Your task to perform on an android device: change keyboard looks Image 0: 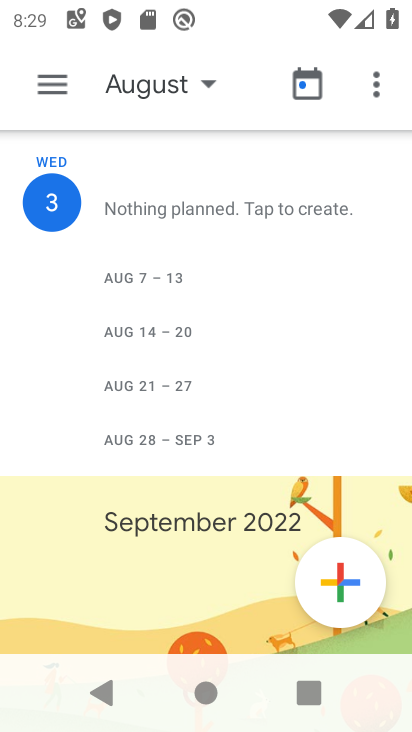
Step 0: press home button
Your task to perform on an android device: change keyboard looks Image 1: 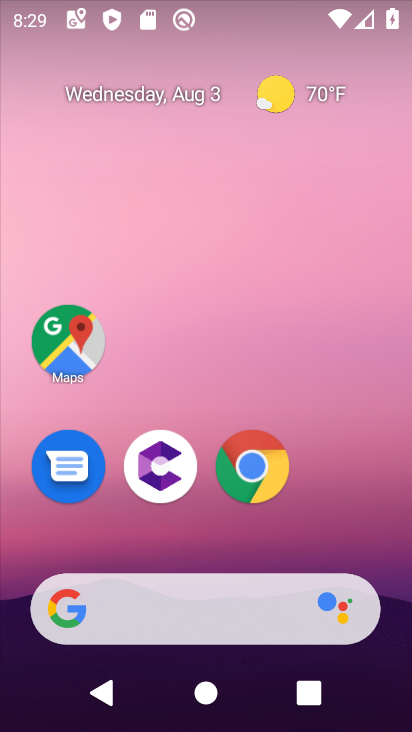
Step 1: drag from (368, 527) to (307, 117)
Your task to perform on an android device: change keyboard looks Image 2: 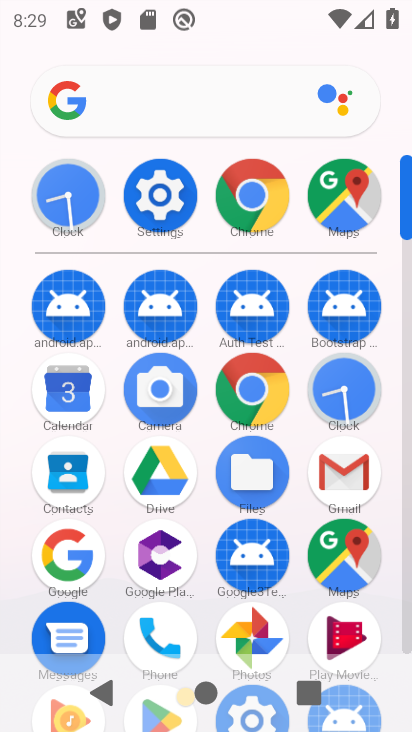
Step 2: click (160, 198)
Your task to perform on an android device: change keyboard looks Image 3: 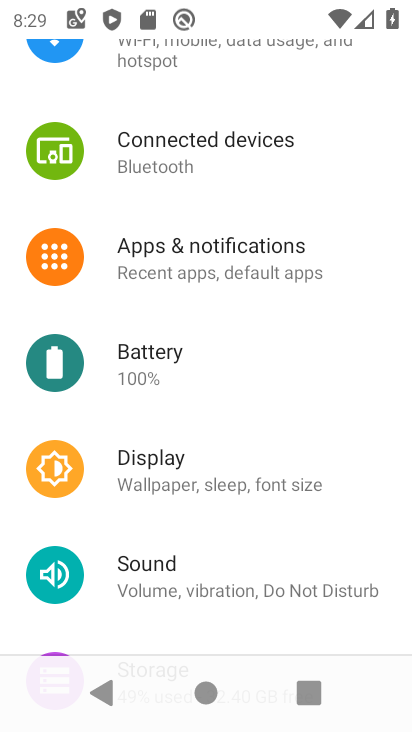
Step 3: click (275, 90)
Your task to perform on an android device: change keyboard looks Image 4: 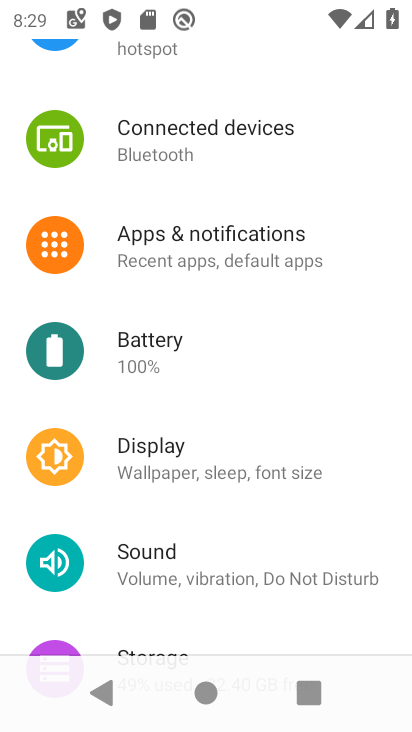
Step 4: drag from (233, 415) to (262, 89)
Your task to perform on an android device: change keyboard looks Image 5: 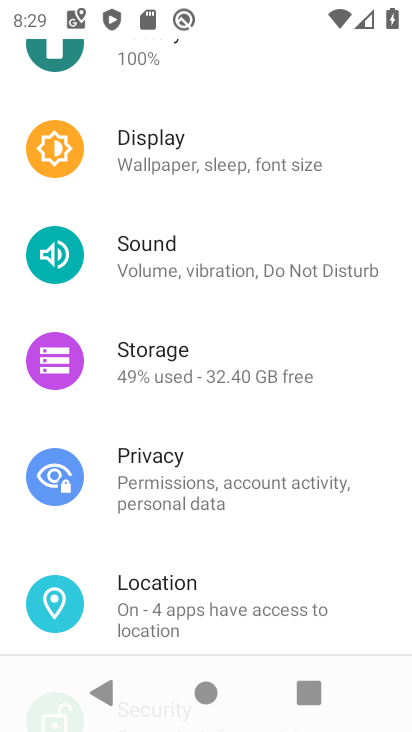
Step 5: drag from (255, 567) to (291, 247)
Your task to perform on an android device: change keyboard looks Image 6: 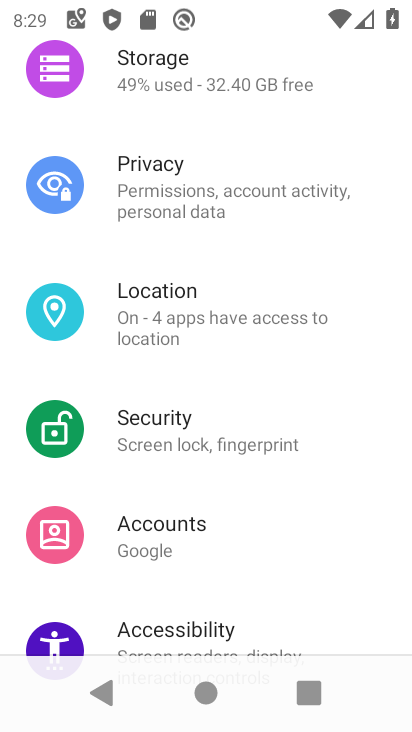
Step 6: drag from (239, 600) to (281, 250)
Your task to perform on an android device: change keyboard looks Image 7: 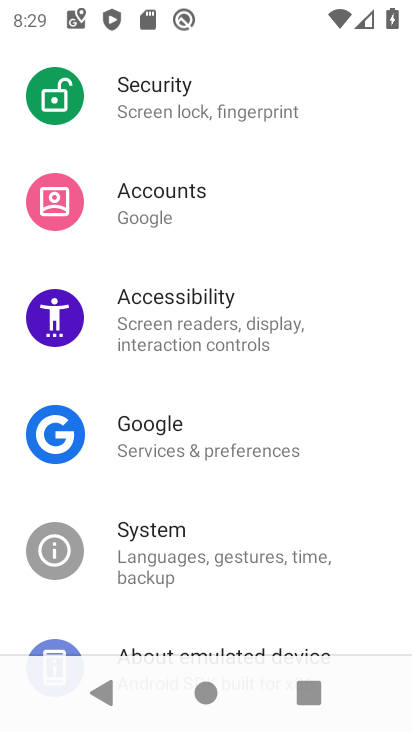
Step 7: click (176, 560)
Your task to perform on an android device: change keyboard looks Image 8: 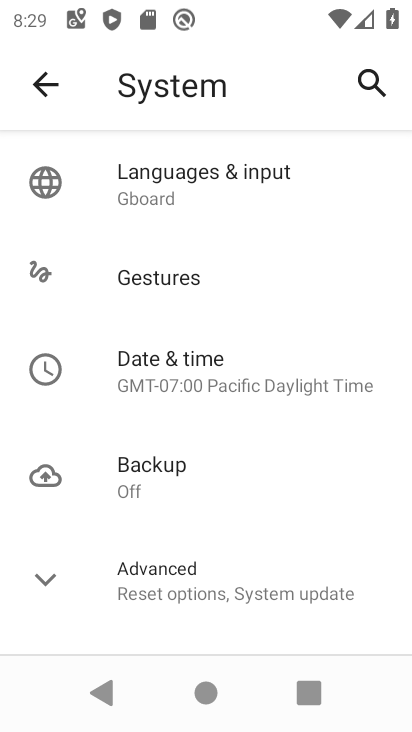
Step 8: click (185, 192)
Your task to perform on an android device: change keyboard looks Image 9: 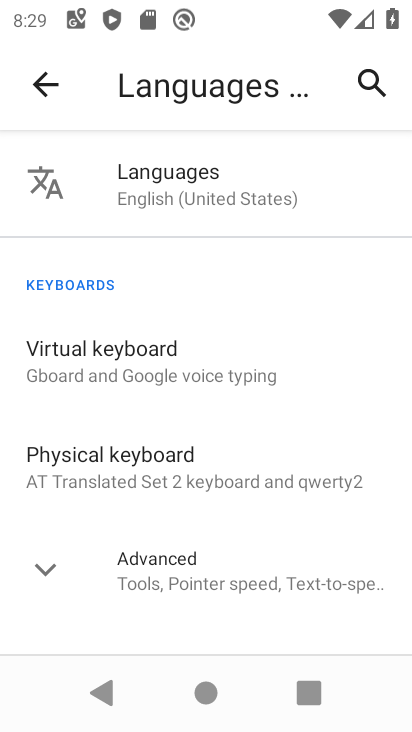
Step 9: click (173, 379)
Your task to perform on an android device: change keyboard looks Image 10: 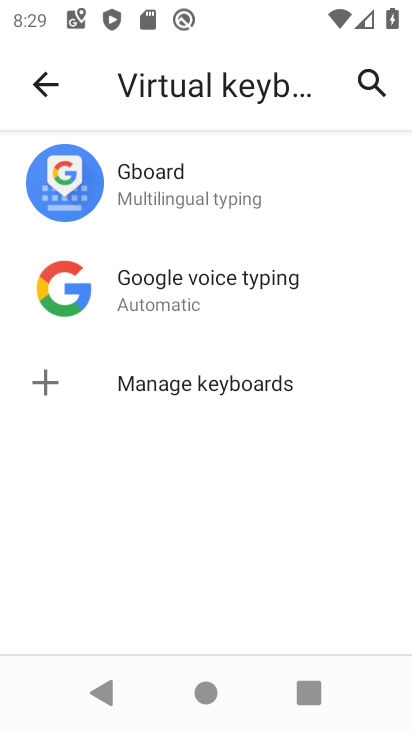
Step 10: click (161, 206)
Your task to perform on an android device: change keyboard looks Image 11: 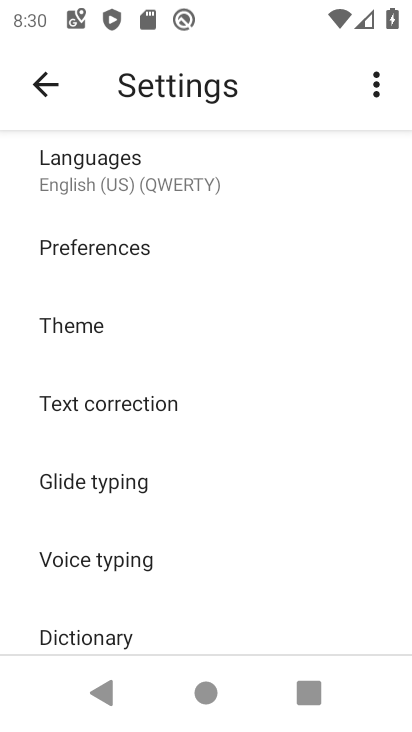
Step 11: click (83, 316)
Your task to perform on an android device: change keyboard looks Image 12: 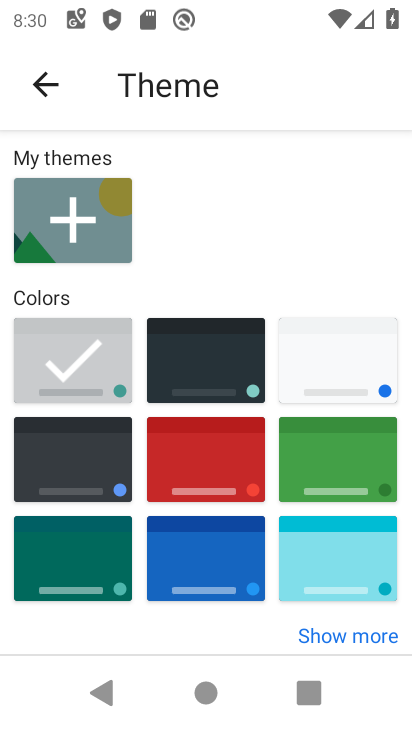
Step 12: click (306, 366)
Your task to perform on an android device: change keyboard looks Image 13: 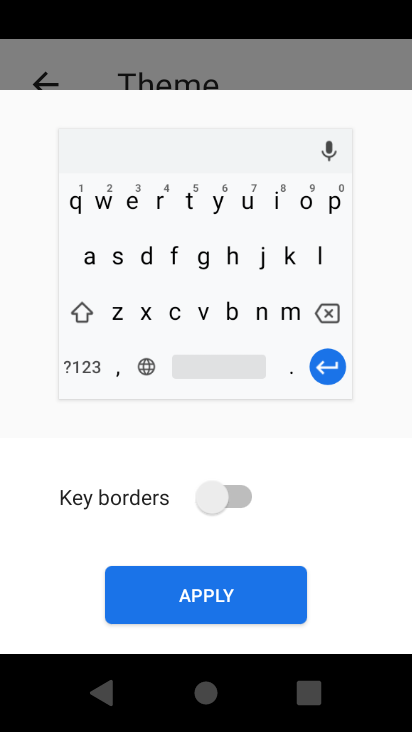
Step 13: click (210, 586)
Your task to perform on an android device: change keyboard looks Image 14: 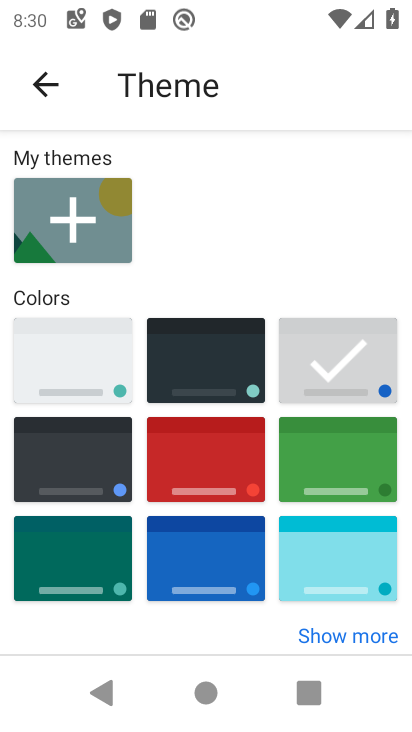
Step 14: task complete